Your task to perform on an android device: Go to settings Image 0: 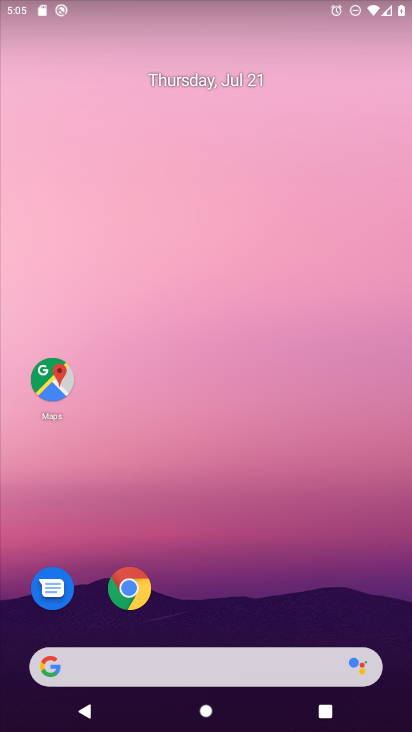
Step 0: drag from (359, 612) to (161, 55)
Your task to perform on an android device: Go to settings Image 1: 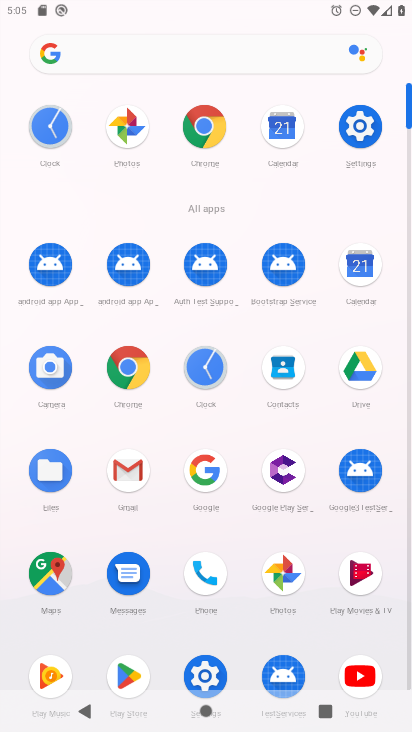
Step 1: click (353, 125)
Your task to perform on an android device: Go to settings Image 2: 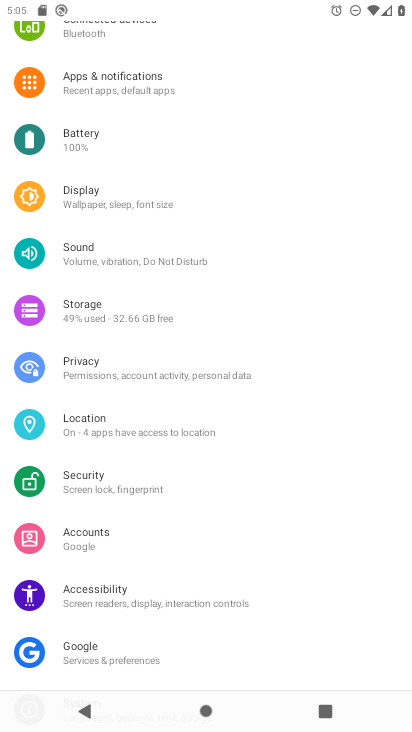
Step 2: task complete